Your task to perform on an android device: Open calendar and show me the third week of next month Image 0: 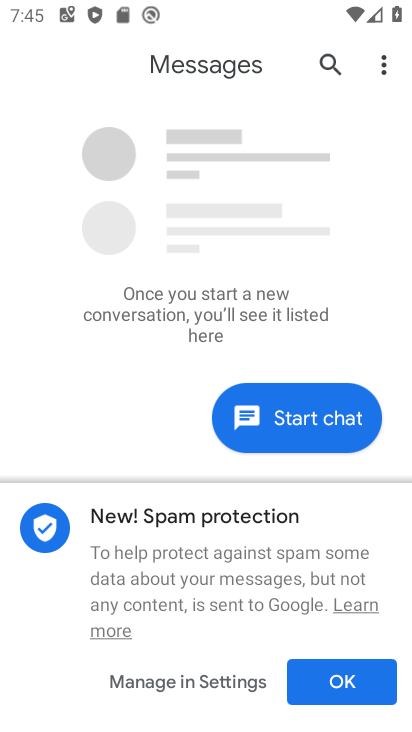
Step 0: press home button
Your task to perform on an android device: Open calendar and show me the third week of next month Image 1: 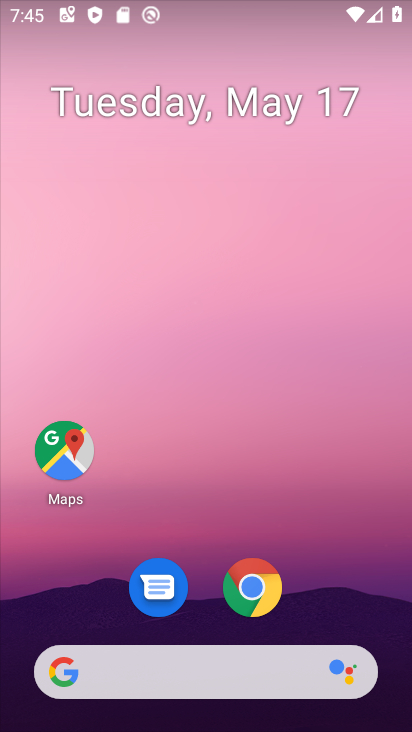
Step 1: click (394, 163)
Your task to perform on an android device: Open calendar and show me the third week of next month Image 2: 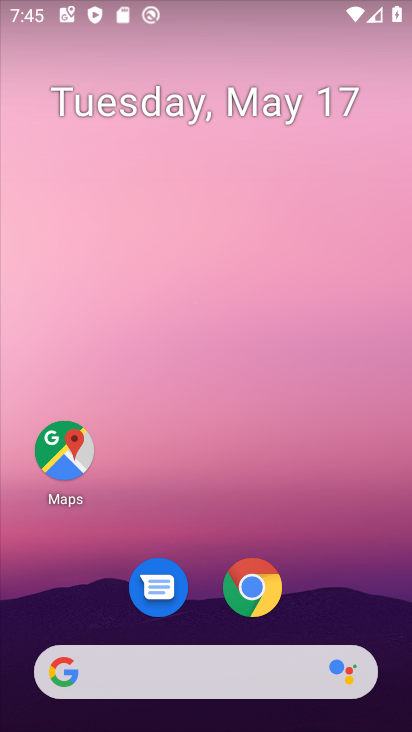
Step 2: drag from (287, 595) to (290, 168)
Your task to perform on an android device: Open calendar and show me the third week of next month Image 3: 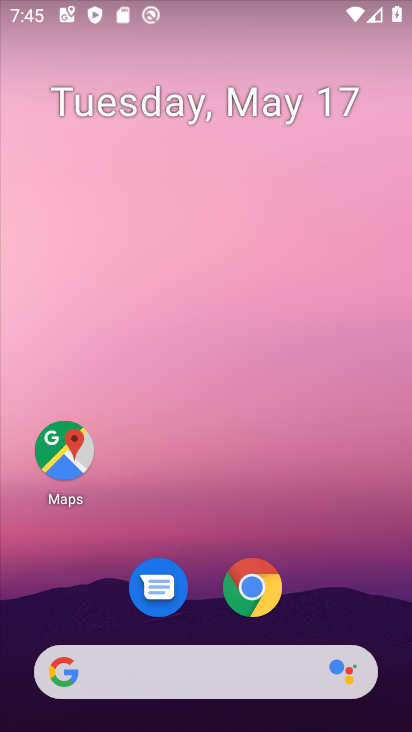
Step 3: drag from (331, 563) to (314, 214)
Your task to perform on an android device: Open calendar and show me the third week of next month Image 4: 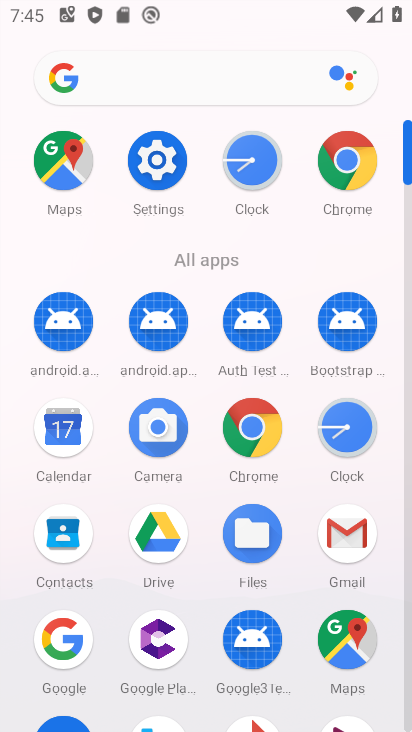
Step 4: click (78, 421)
Your task to perform on an android device: Open calendar and show me the third week of next month Image 5: 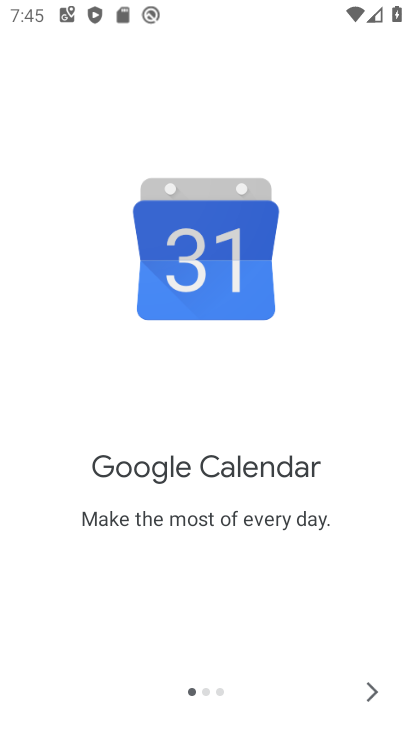
Step 5: click (381, 689)
Your task to perform on an android device: Open calendar and show me the third week of next month Image 6: 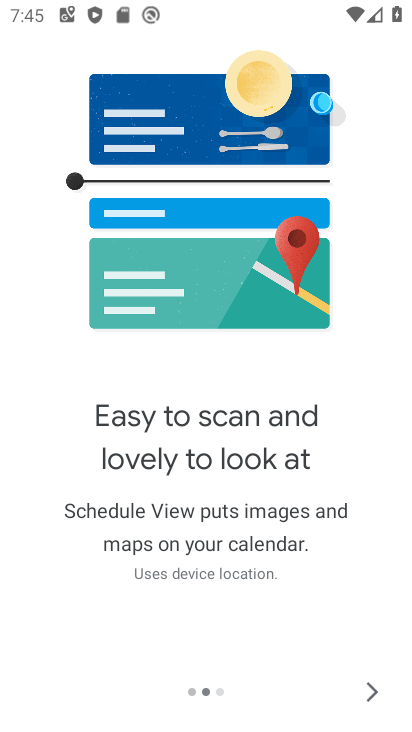
Step 6: click (381, 689)
Your task to perform on an android device: Open calendar and show me the third week of next month Image 7: 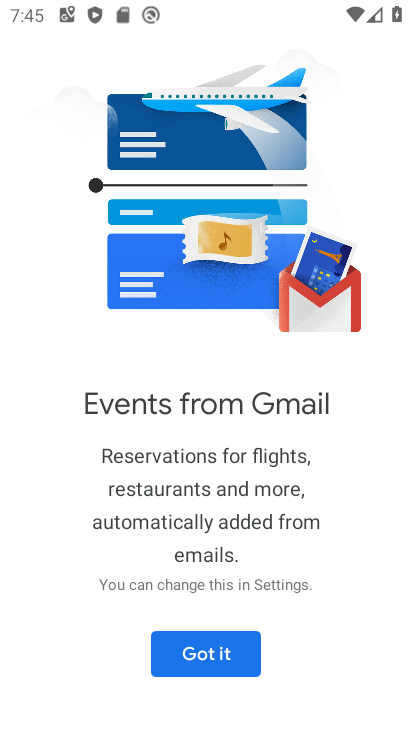
Step 7: click (224, 669)
Your task to perform on an android device: Open calendar and show me the third week of next month Image 8: 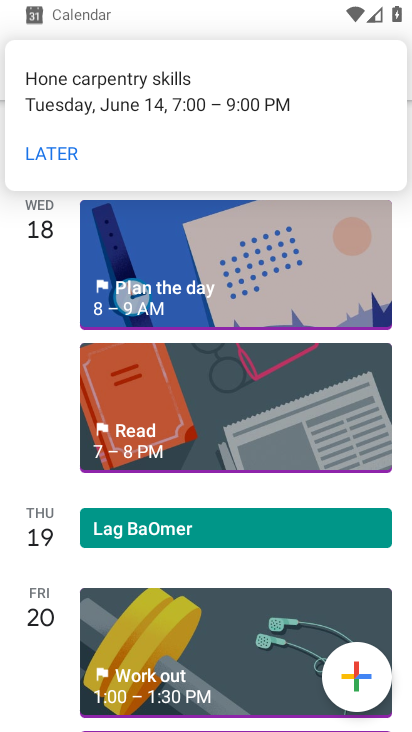
Step 8: click (140, 66)
Your task to perform on an android device: Open calendar and show me the third week of next month Image 9: 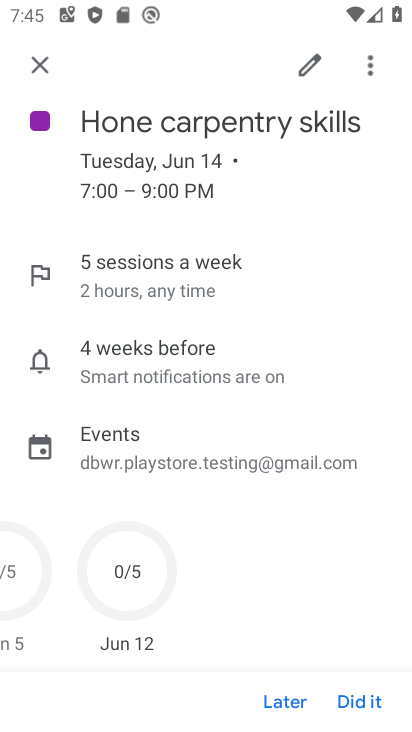
Step 9: click (49, 61)
Your task to perform on an android device: Open calendar and show me the third week of next month Image 10: 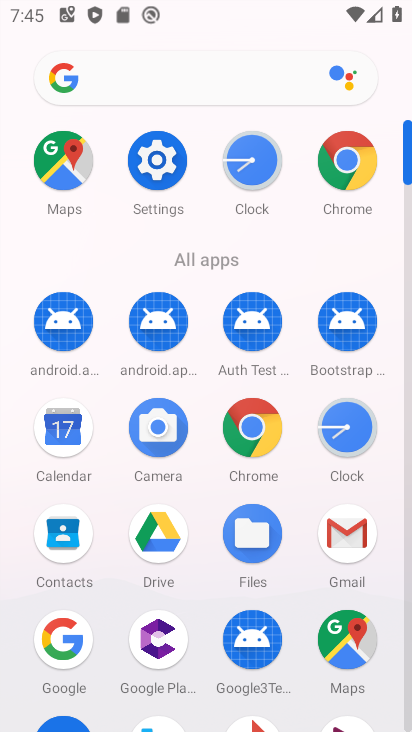
Step 10: click (56, 425)
Your task to perform on an android device: Open calendar and show me the third week of next month Image 11: 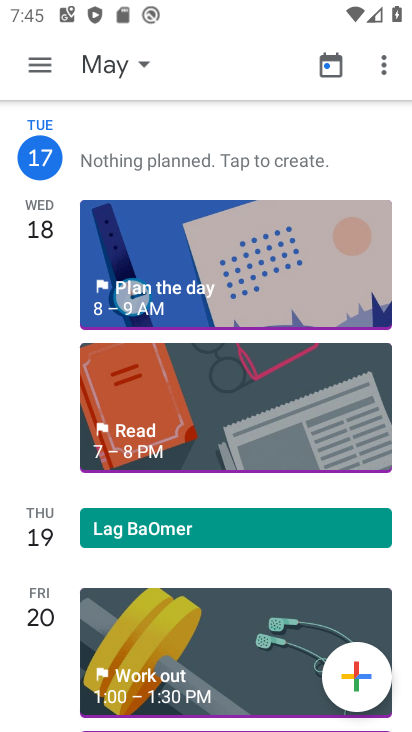
Step 11: click (90, 60)
Your task to perform on an android device: Open calendar and show me the third week of next month Image 12: 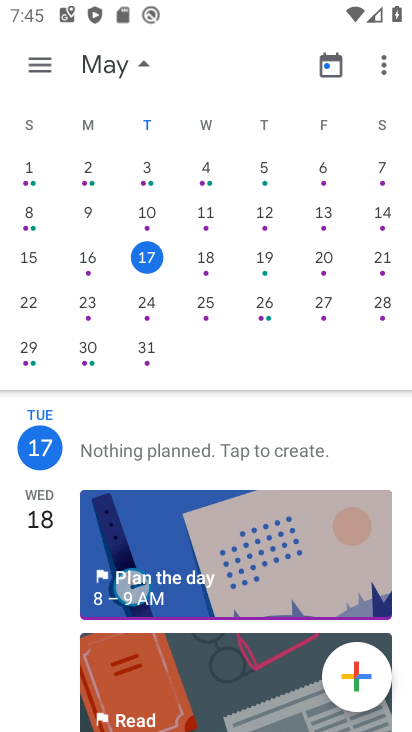
Step 12: drag from (347, 271) to (68, 253)
Your task to perform on an android device: Open calendar and show me the third week of next month Image 13: 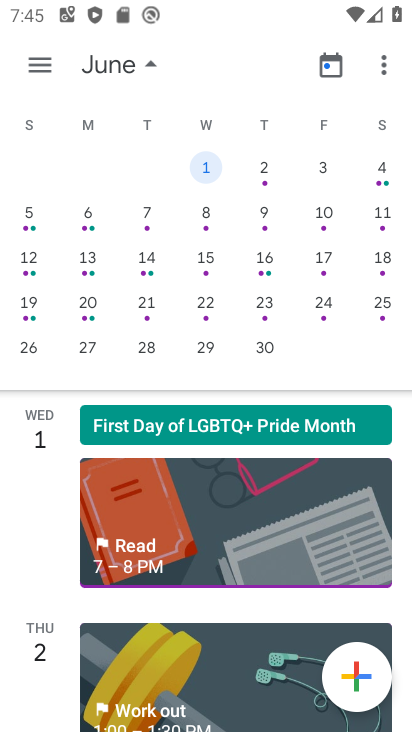
Step 13: click (28, 300)
Your task to perform on an android device: Open calendar and show me the third week of next month Image 14: 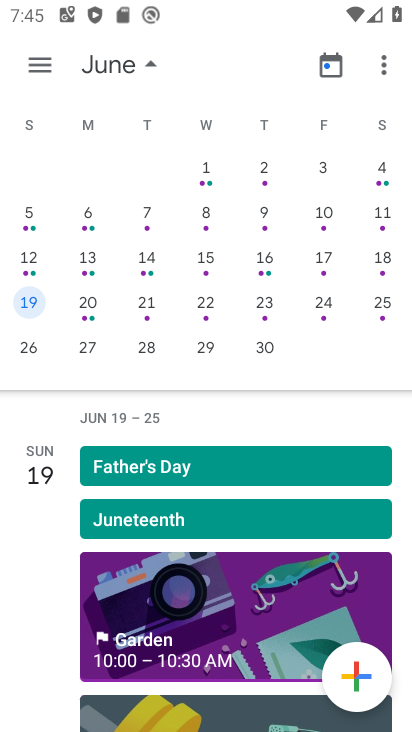
Step 14: click (47, 68)
Your task to perform on an android device: Open calendar and show me the third week of next month Image 15: 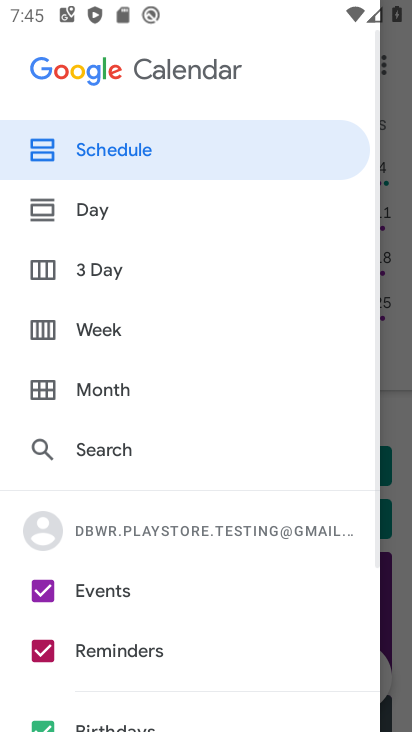
Step 15: click (101, 333)
Your task to perform on an android device: Open calendar and show me the third week of next month Image 16: 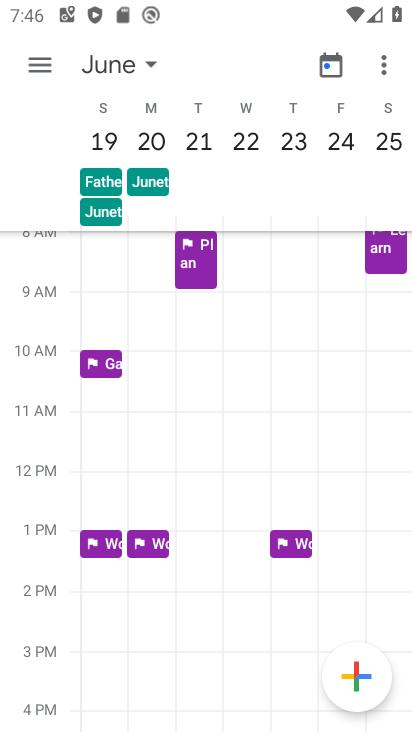
Step 16: task complete